Your task to perform on an android device: Open the map Image 0: 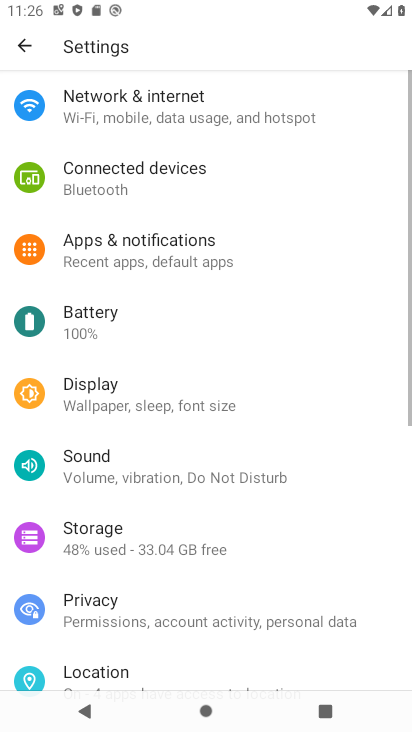
Step 0: press home button
Your task to perform on an android device: Open the map Image 1: 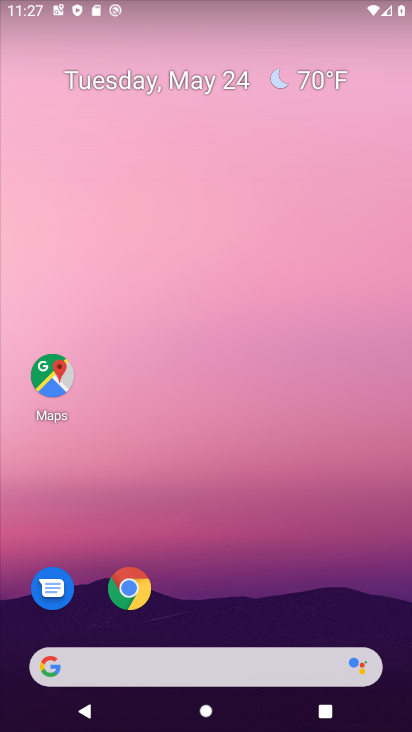
Step 1: click (47, 371)
Your task to perform on an android device: Open the map Image 2: 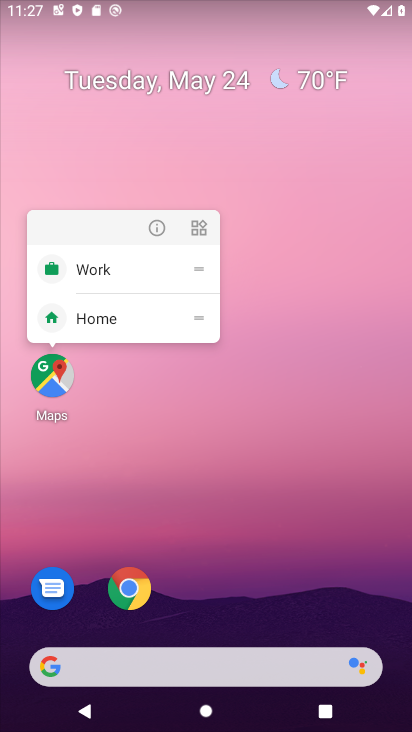
Step 2: click (54, 366)
Your task to perform on an android device: Open the map Image 3: 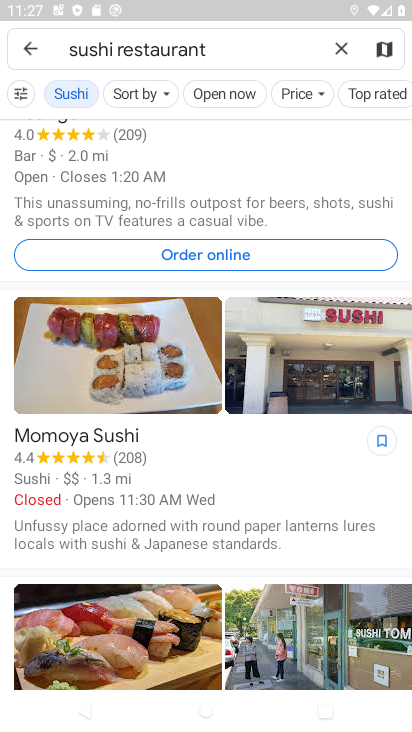
Step 3: click (33, 41)
Your task to perform on an android device: Open the map Image 4: 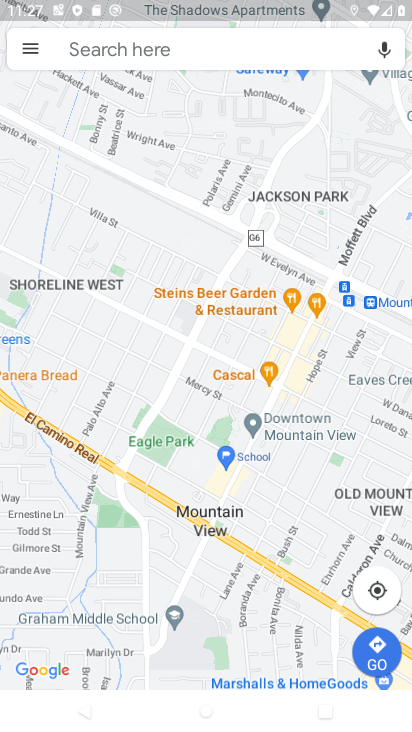
Step 4: task complete